Your task to perform on an android device: turn on translation in the chrome app Image 0: 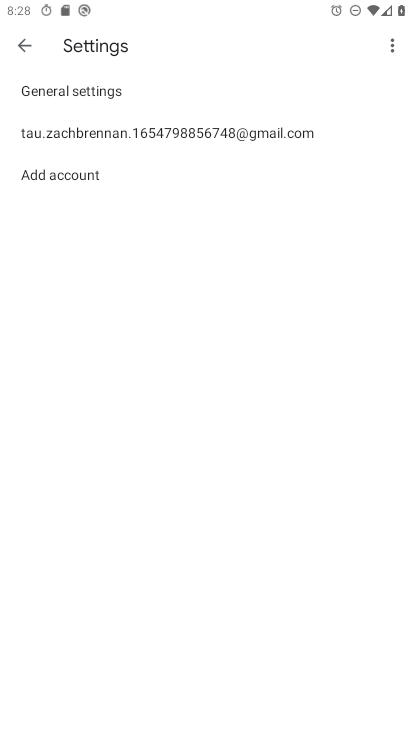
Step 0: press home button
Your task to perform on an android device: turn on translation in the chrome app Image 1: 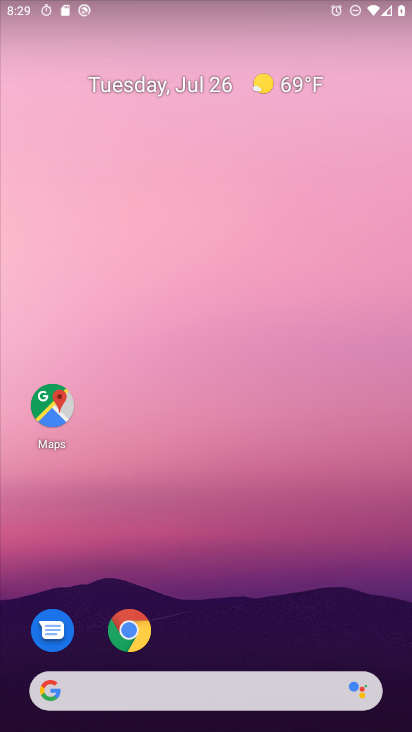
Step 1: drag from (229, 593) to (229, 6)
Your task to perform on an android device: turn on translation in the chrome app Image 2: 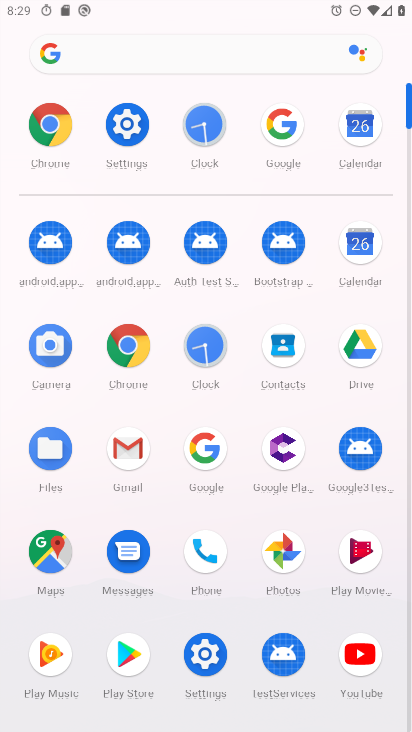
Step 2: click (120, 349)
Your task to perform on an android device: turn on translation in the chrome app Image 3: 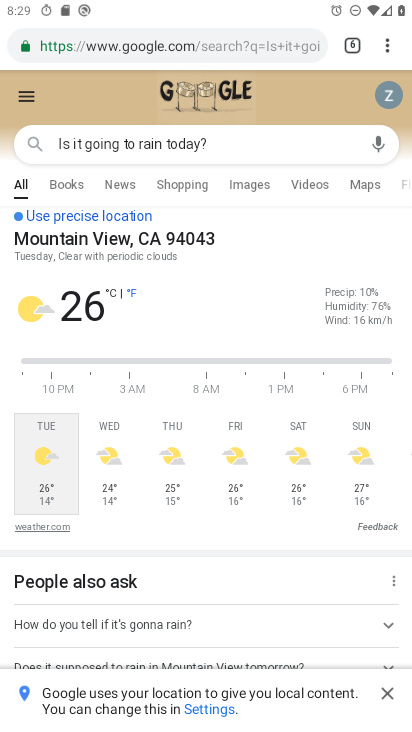
Step 3: click (383, 48)
Your task to perform on an android device: turn on translation in the chrome app Image 4: 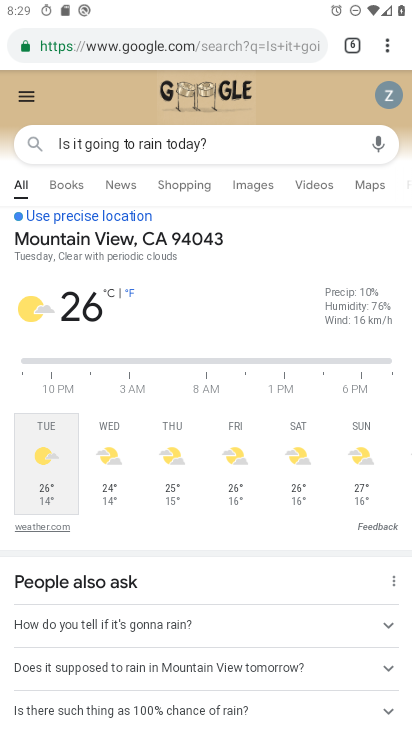
Step 4: click (384, 40)
Your task to perform on an android device: turn on translation in the chrome app Image 5: 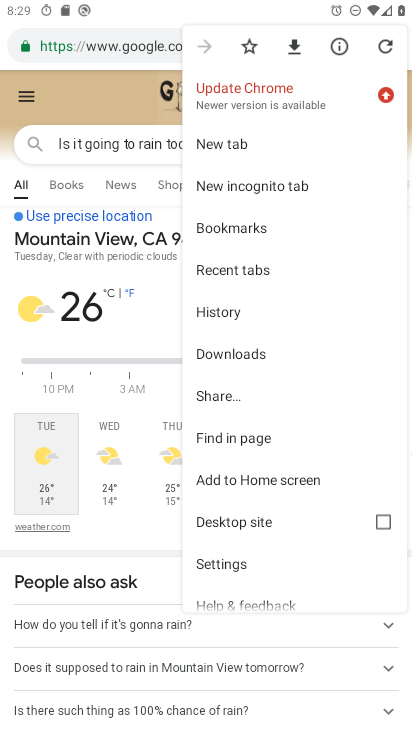
Step 5: click (239, 560)
Your task to perform on an android device: turn on translation in the chrome app Image 6: 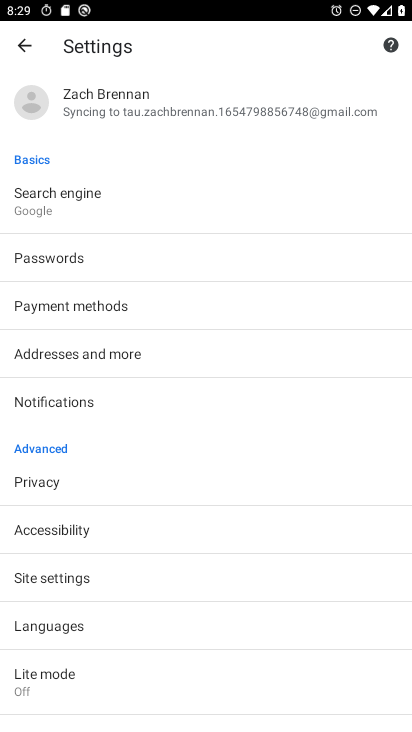
Step 6: click (114, 616)
Your task to perform on an android device: turn on translation in the chrome app Image 7: 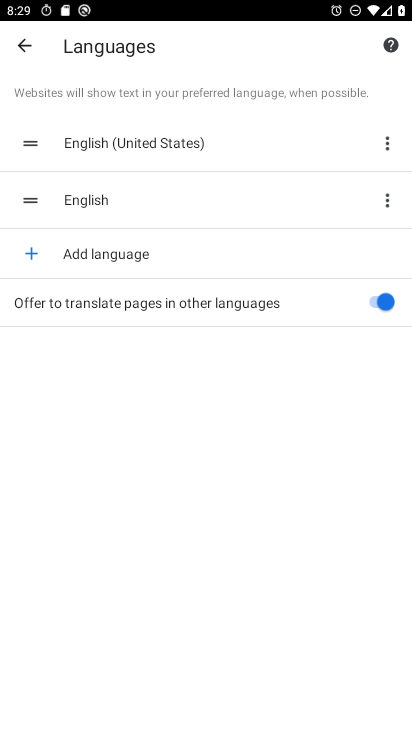
Step 7: task complete